Your task to perform on an android device: Open eBay Image 0: 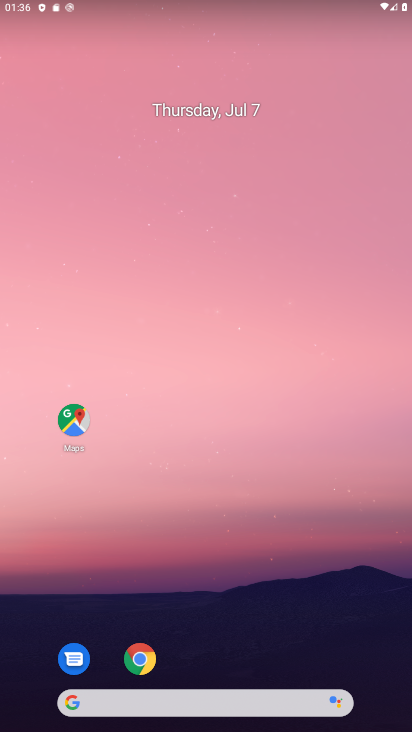
Step 0: drag from (185, 601) to (226, 83)
Your task to perform on an android device: Open eBay Image 1: 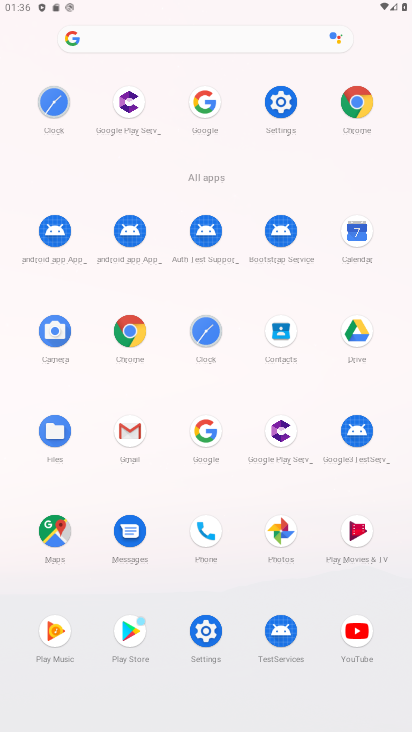
Step 1: click (207, 99)
Your task to perform on an android device: Open eBay Image 2: 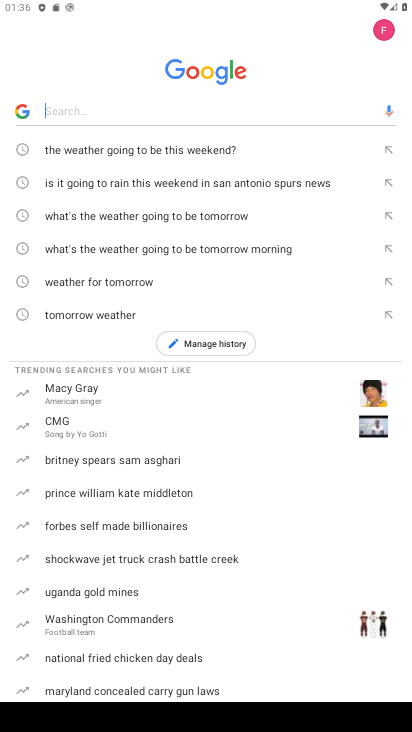
Step 2: type "ebay"
Your task to perform on an android device: Open eBay Image 3: 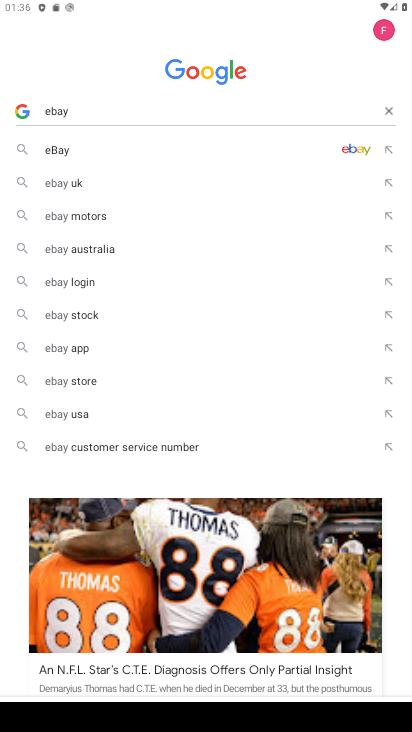
Step 3: click (92, 157)
Your task to perform on an android device: Open eBay Image 4: 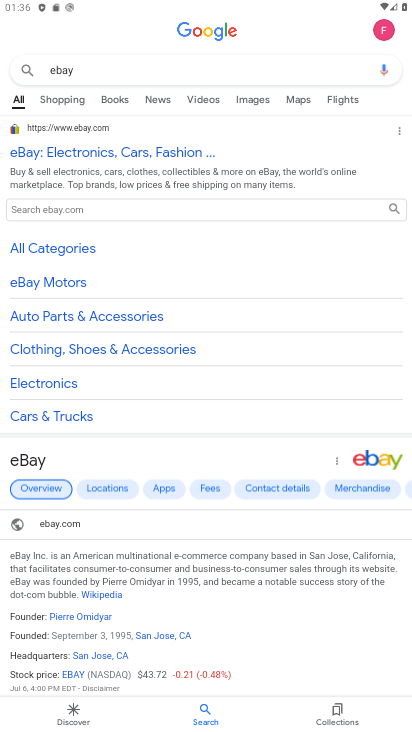
Step 4: click (66, 460)
Your task to perform on an android device: Open eBay Image 5: 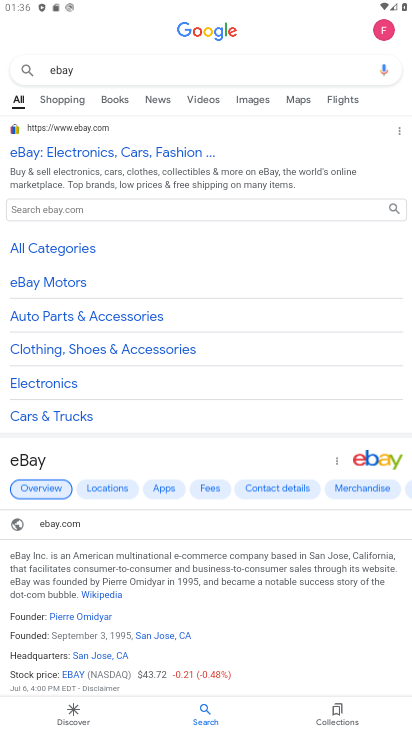
Step 5: click (57, 123)
Your task to perform on an android device: Open eBay Image 6: 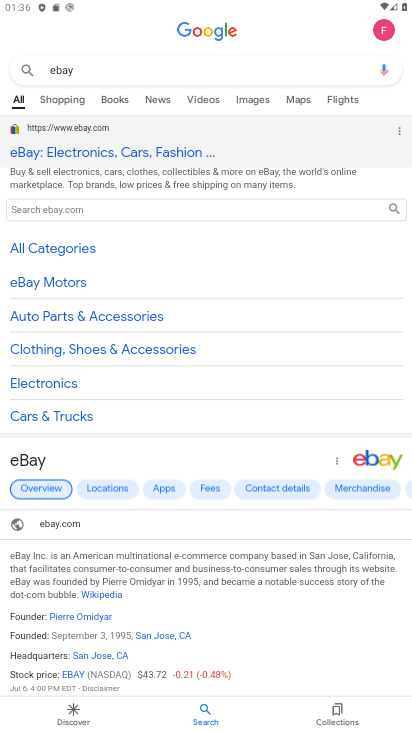
Step 6: click (61, 141)
Your task to perform on an android device: Open eBay Image 7: 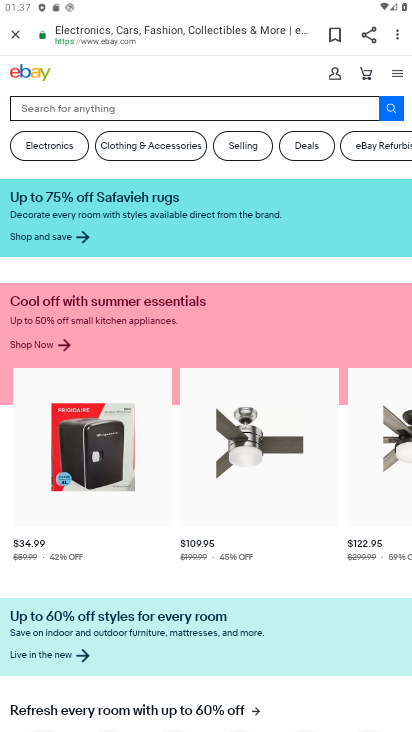
Step 7: task complete